Your task to perform on an android device: Play the last video I watched on Youtube Image 0: 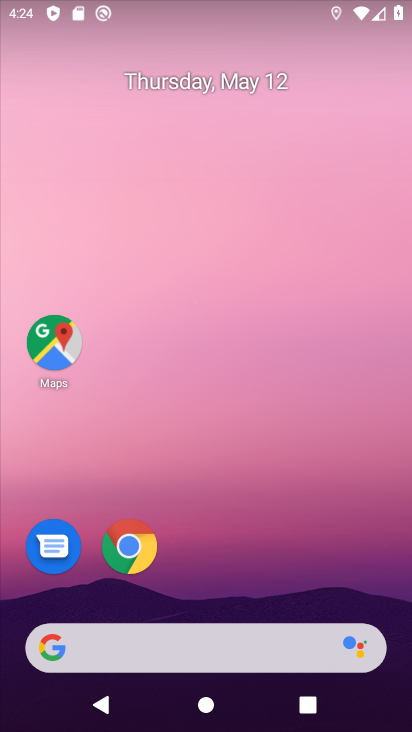
Step 0: drag from (236, 406) to (172, 20)
Your task to perform on an android device: Play the last video I watched on Youtube Image 1: 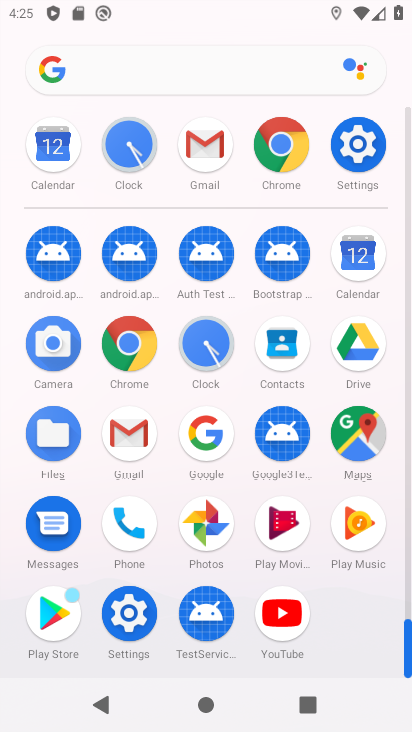
Step 1: drag from (4, 547) to (2, 261)
Your task to perform on an android device: Play the last video I watched on Youtube Image 2: 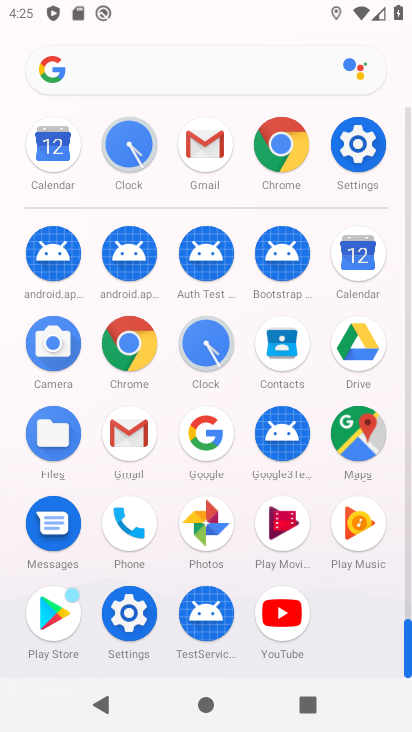
Step 2: click (277, 614)
Your task to perform on an android device: Play the last video I watched on Youtube Image 3: 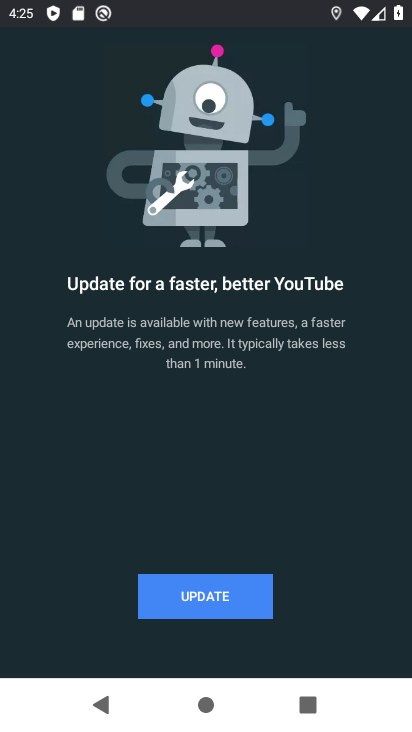
Step 3: click (184, 613)
Your task to perform on an android device: Play the last video I watched on Youtube Image 4: 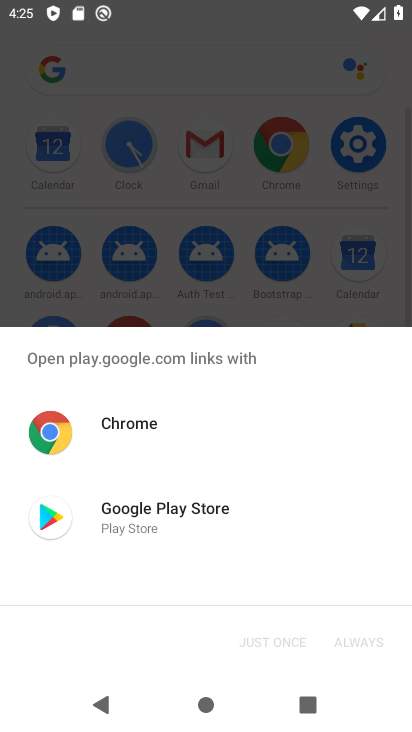
Step 4: click (176, 518)
Your task to perform on an android device: Play the last video I watched on Youtube Image 5: 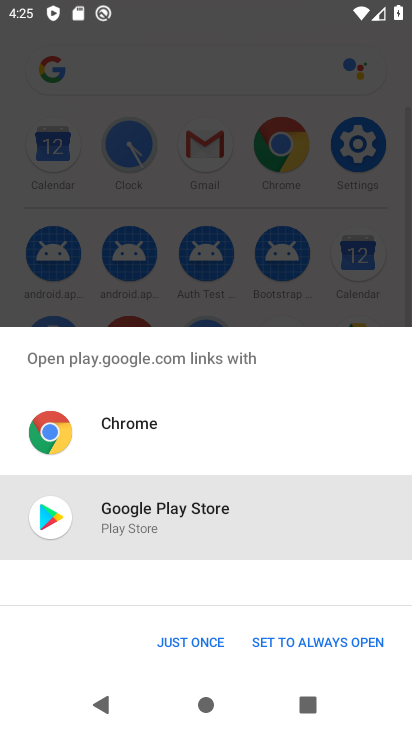
Step 5: click (163, 631)
Your task to perform on an android device: Play the last video I watched on Youtube Image 6: 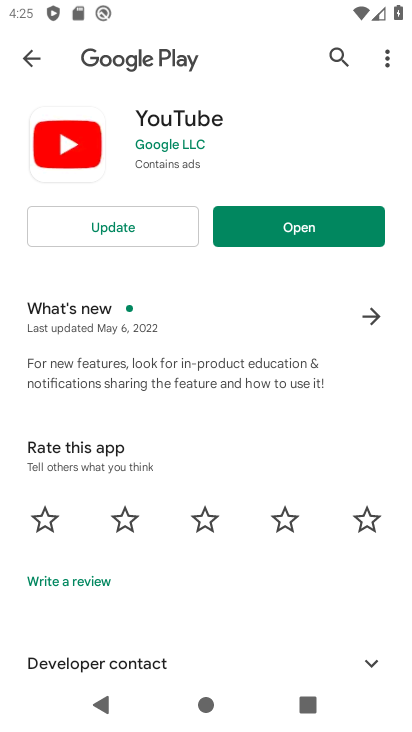
Step 6: click (164, 222)
Your task to perform on an android device: Play the last video I watched on Youtube Image 7: 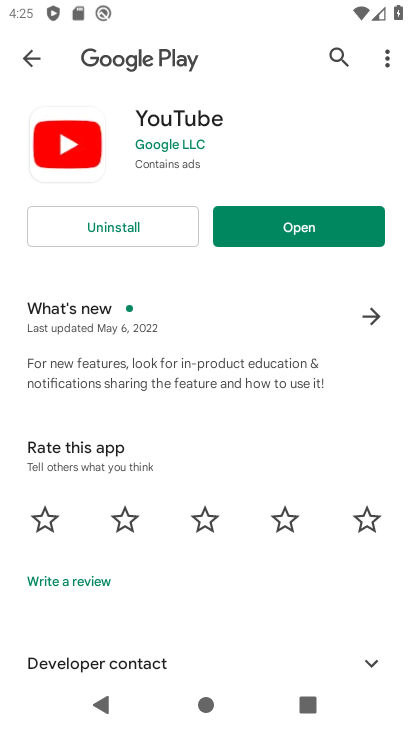
Step 7: click (246, 235)
Your task to perform on an android device: Play the last video I watched on Youtube Image 8: 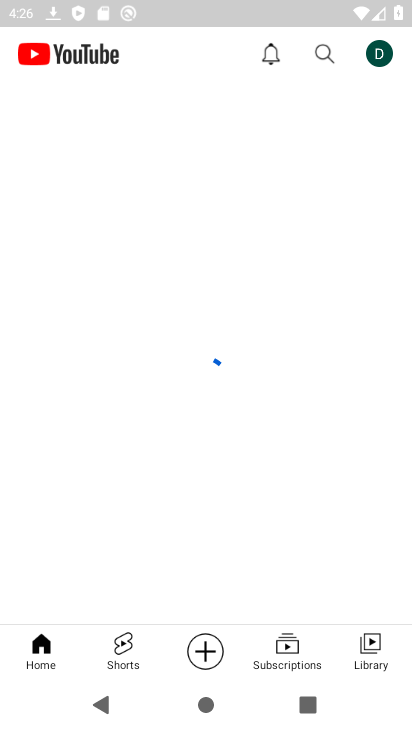
Step 8: click (374, 638)
Your task to perform on an android device: Play the last video I watched on Youtube Image 9: 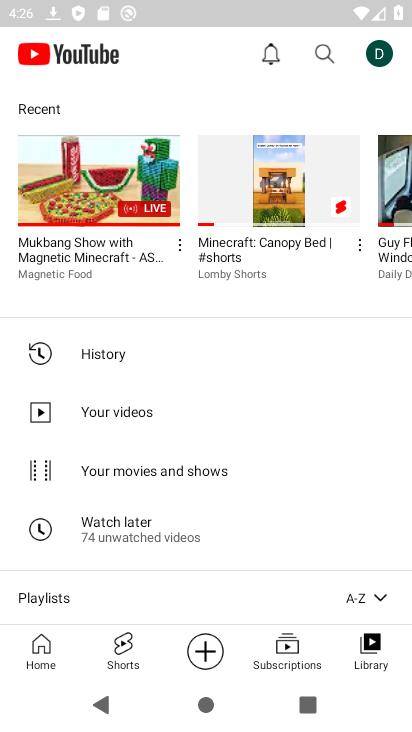
Step 9: click (126, 184)
Your task to perform on an android device: Play the last video I watched on Youtube Image 10: 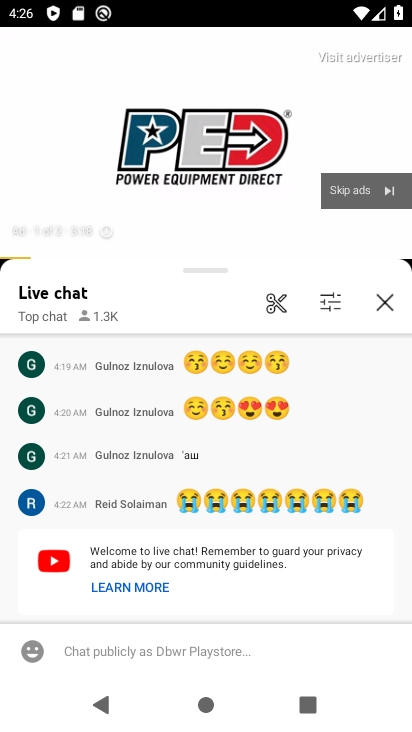
Step 10: click (387, 293)
Your task to perform on an android device: Play the last video I watched on Youtube Image 11: 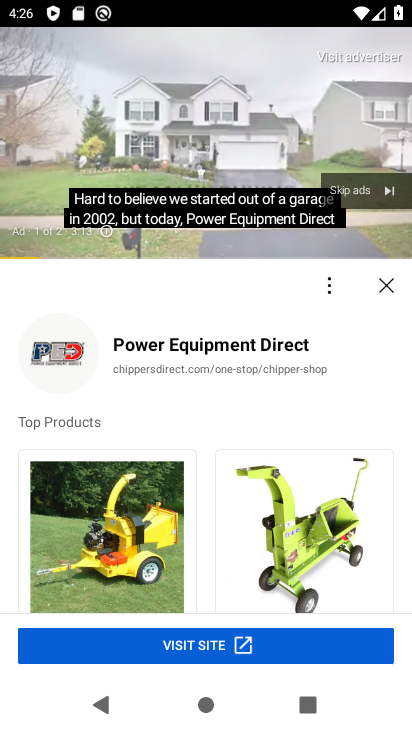
Step 11: task complete